Your task to perform on an android device: What's the weather going to be this weekend? Image 0: 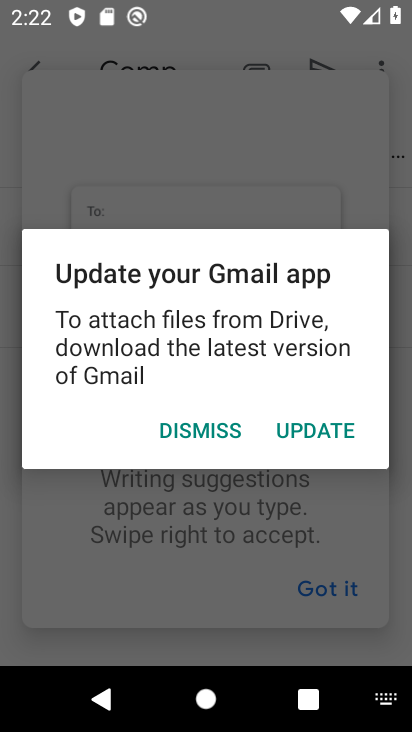
Step 0: press home button
Your task to perform on an android device: What's the weather going to be this weekend? Image 1: 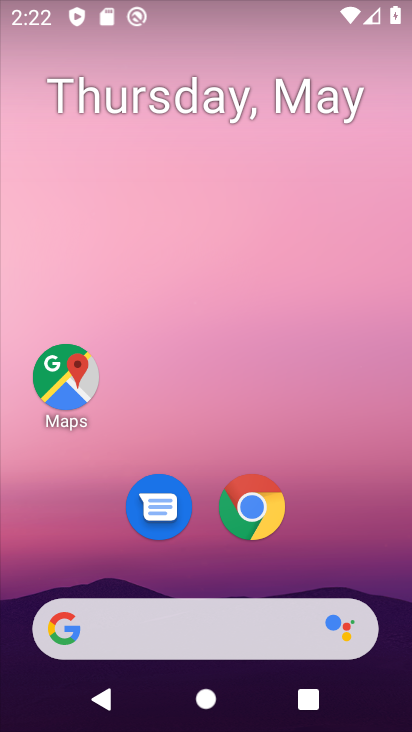
Step 1: click (203, 622)
Your task to perform on an android device: What's the weather going to be this weekend? Image 2: 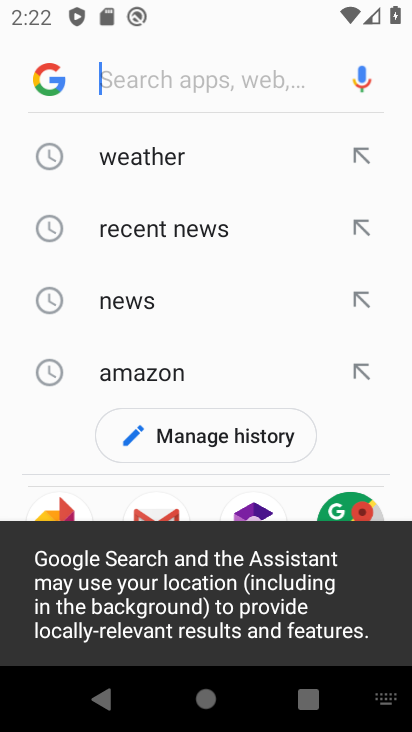
Step 2: click (149, 155)
Your task to perform on an android device: What's the weather going to be this weekend? Image 3: 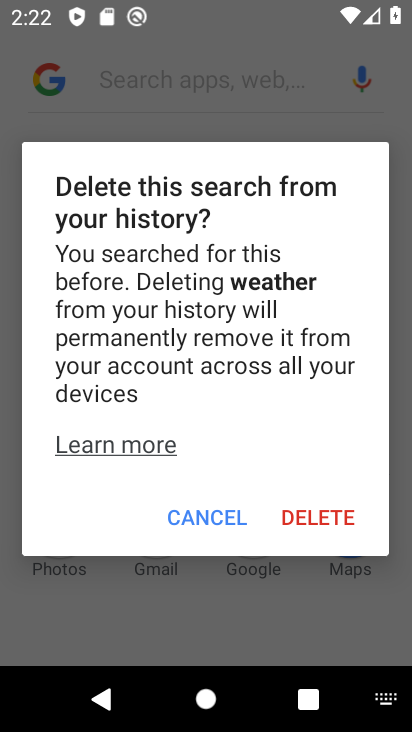
Step 3: click (232, 527)
Your task to perform on an android device: What's the weather going to be this weekend? Image 4: 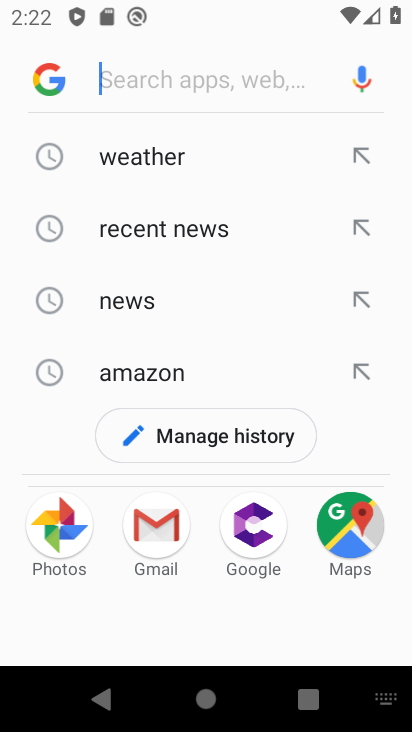
Step 4: click (144, 161)
Your task to perform on an android device: What's the weather going to be this weekend? Image 5: 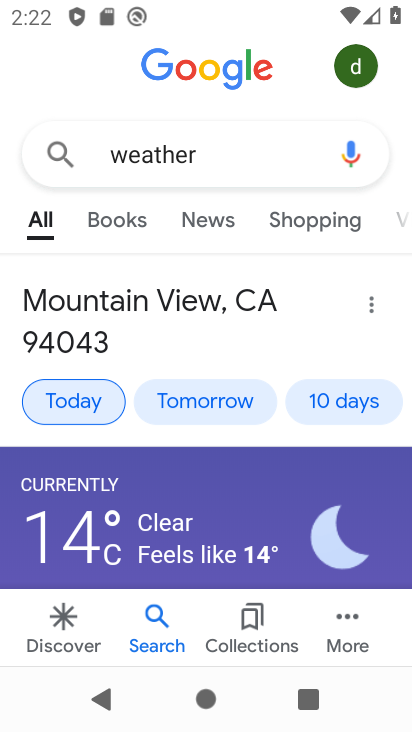
Step 5: click (329, 397)
Your task to perform on an android device: What's the weather going to be this weekend? Image 6: 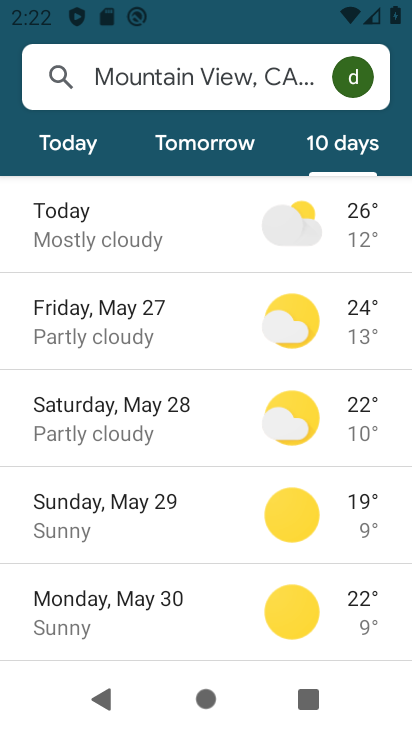
Step 6: task complete